Your task to perform on an android device: Toggle the flashlight Image 0: 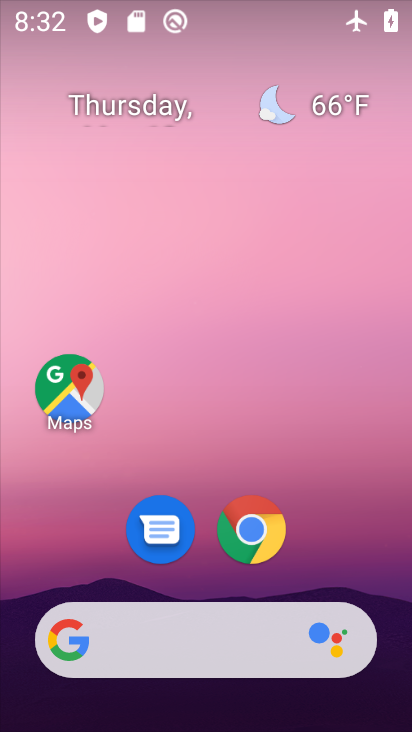
Step 0: drag from (332, 566) to (304, 55)
Your task to perform on an android device: Toggle the flashlight Image 1: 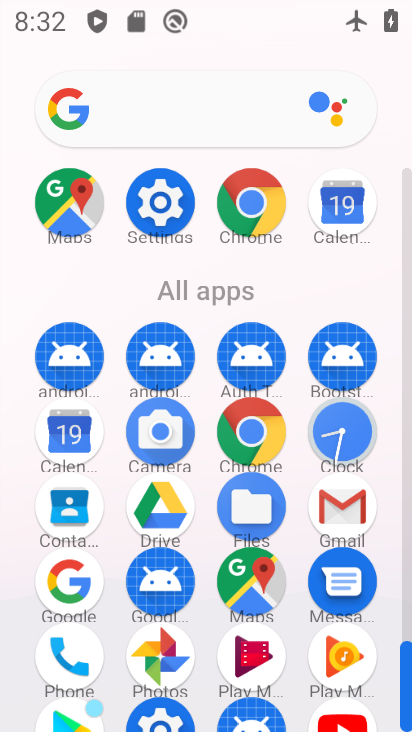
Step 1: click (159, 200)
Your task to perform on an android device: Toggle the flashlight Image 2: 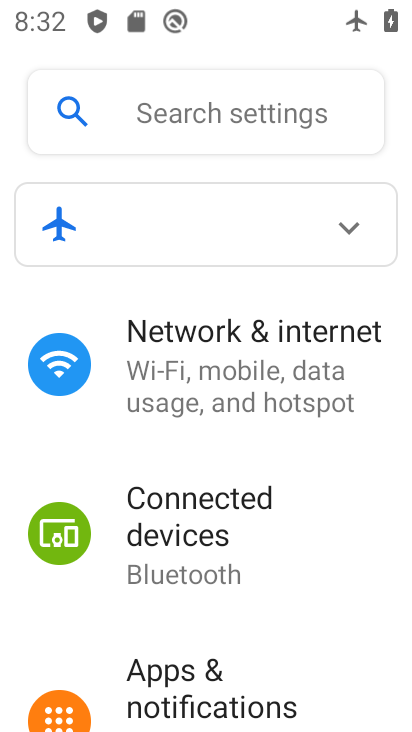
Step 2: drag from (282, 581) to (306, 436)
Your task to perform on an android device: Toggle the flashlight Image 3: 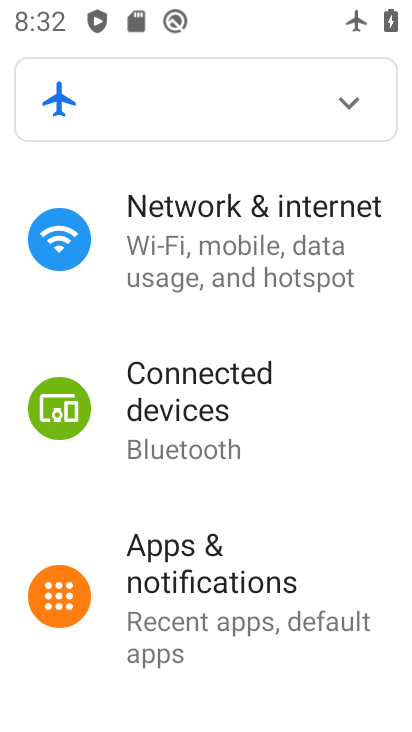
Step 3: drag from (235, 655) to (279, 563)
Your task to perform on an android device: Toggle the flashlight Image 4: 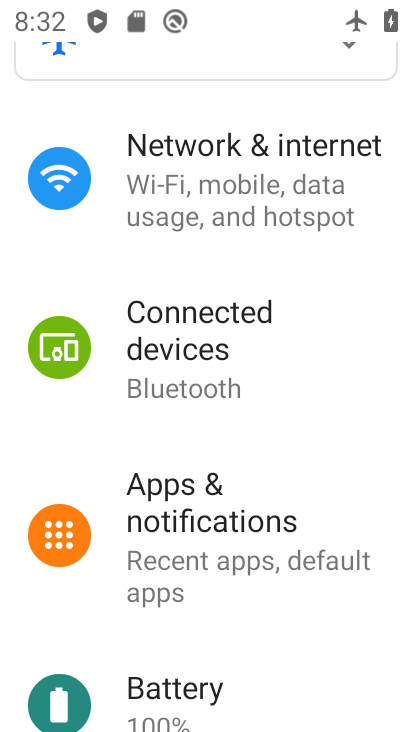
Step 4: drag from (218, 648) to (284, 496)
Your task to perform on an android device: Toggle the flashlight Image 5: 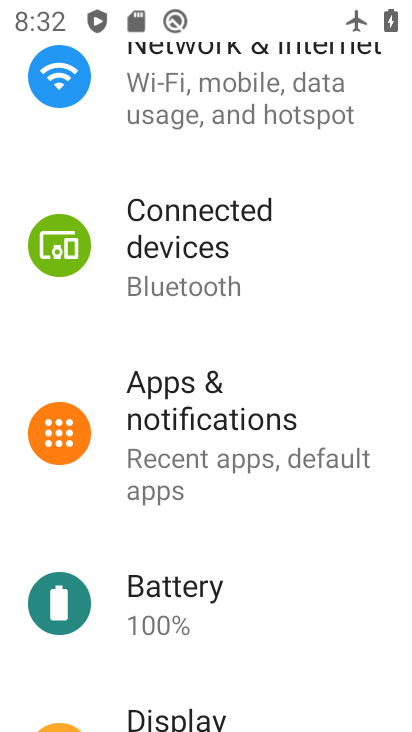
Step 5: drag from (209, 656) to (279, 515)
Your task to perform on an android device: Toggle the flashlight Image 6: 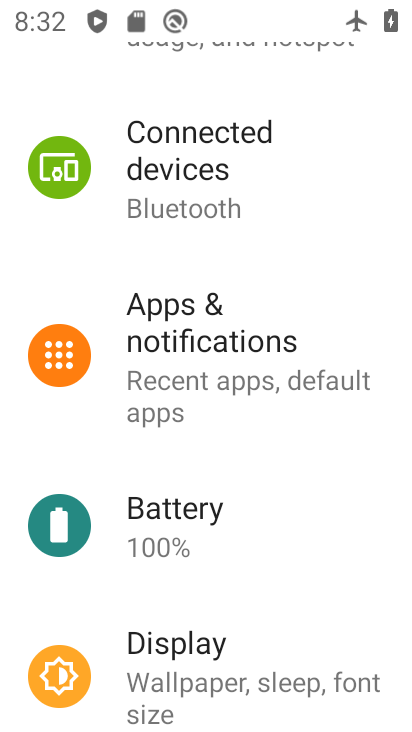
Step 6: drag from (206, 622) to (262, 522)
Your task to perform on an android device: Toggle the flashlight Image 7: 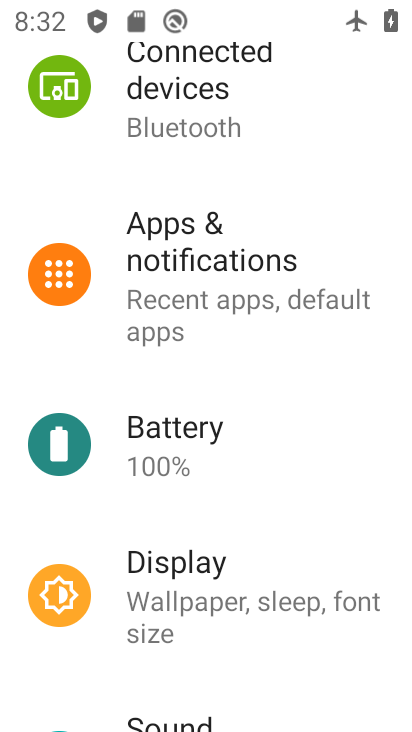
Step 7: drag from (250, 545) to (289, 464)
Your task to perform on an android device: Toggle the flashlight Image 8: 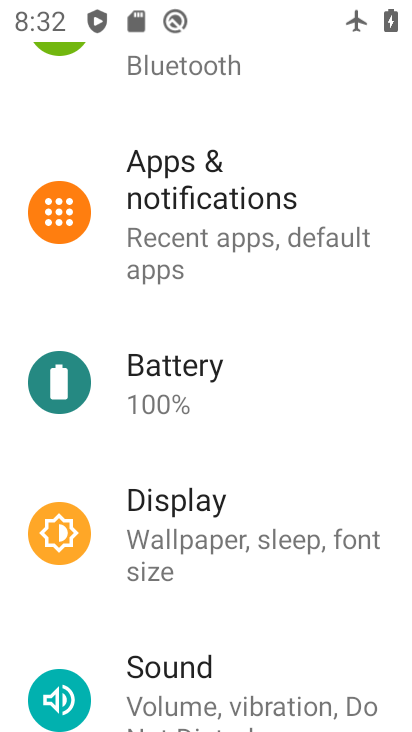
Step 8: click (260, 519)
Your task to perform on an android device: Toggle the flashlight Image 9: 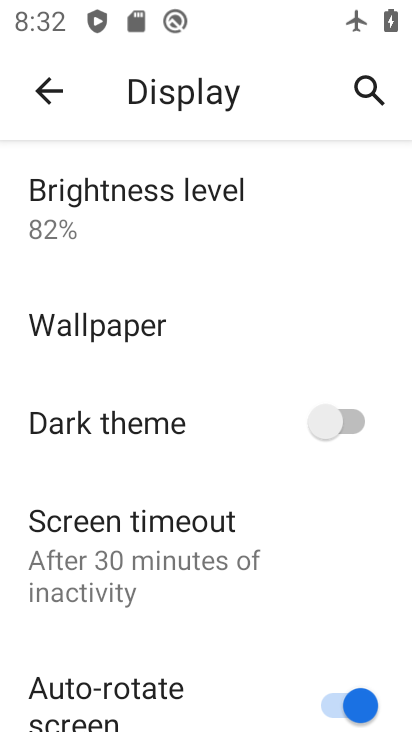
Step 9: drag from (150, 561) to (124, 429)
Your task to perform on an android device: Toggle the flashlight Image 10: 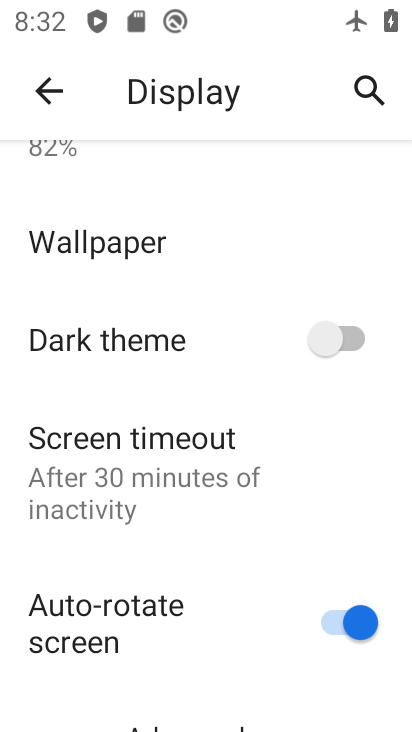
Step 10: drag from (165, 674) to (212, 540)
Your task to perform on an android device: Toggle the flashlight Image 11: 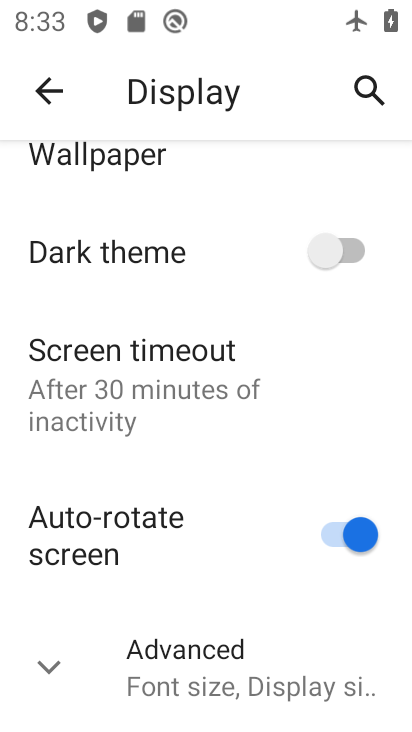
Step 11: click (166, 648)
Your task to perform on an android device: Toggle the flashlight Image 12: 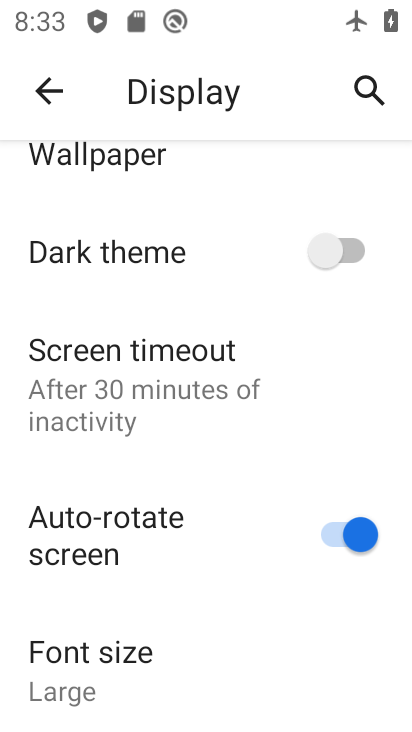
Step 12: click (377, 92)
Your task to perform on an android device: Toggle the flashlight Image 13: 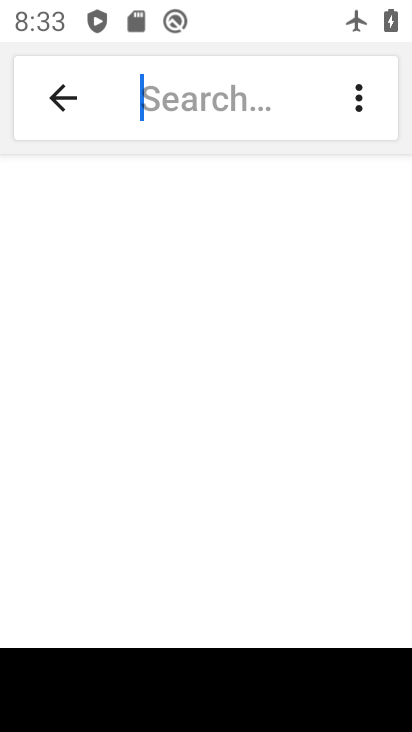
Step 13: click (221, 102)
Your task to perform on an android device: Toggle the flashlight Image 14: 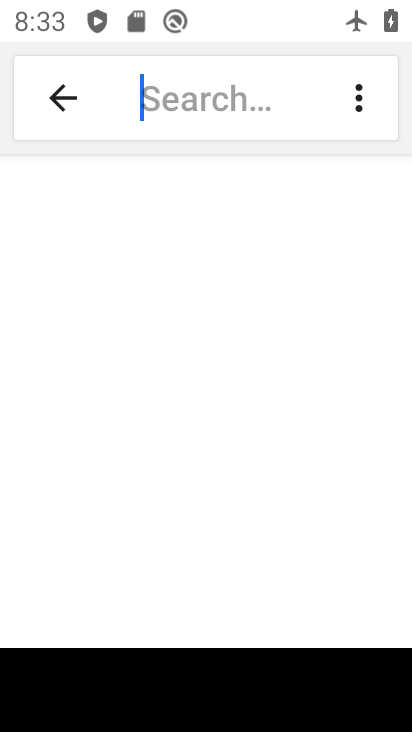
Step 14: click (53, 90)
Your task to perform on an android device: Toggle the flashlight Image 15: 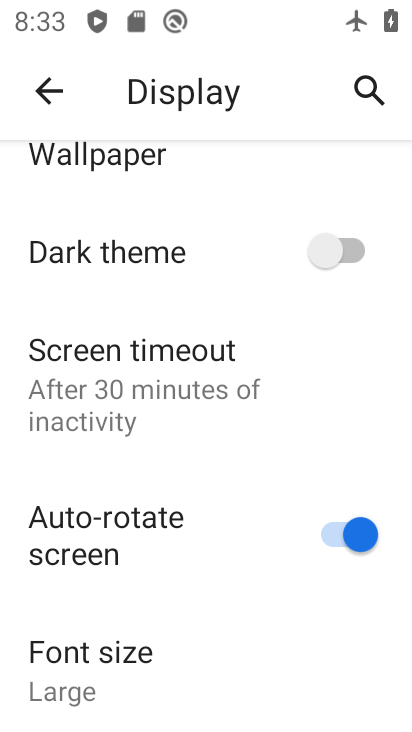
Step 15: task complete